Your task to perform on an android device: open sync settings in chrome Image 0: 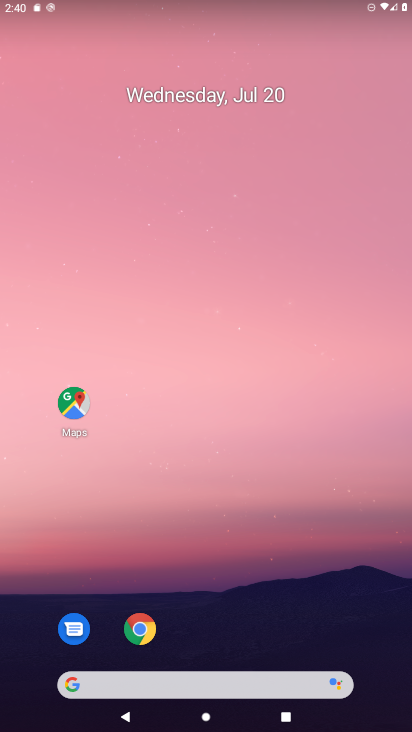
Step 0: press home button
Your task to perform on an android device: open sync settings in chrome Image 1: 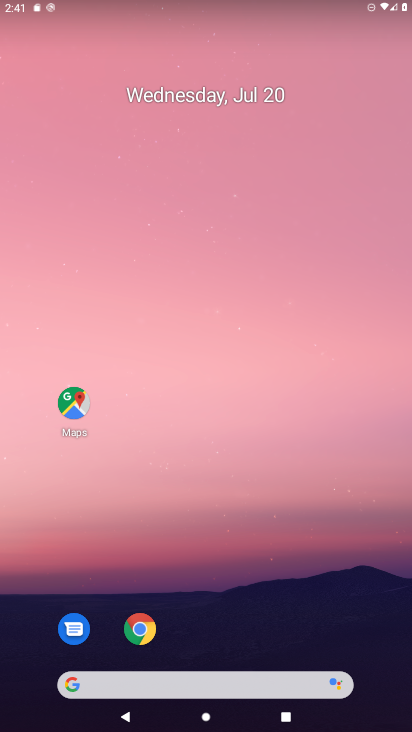
Step 1: drag from (272, 634) to (317, 50)
Your task to perform on an android device: open sync settings in chrome Image 2: 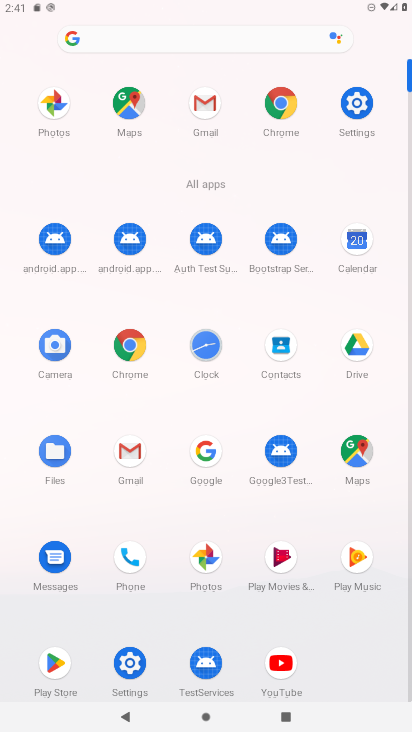
Step 2: click (283, 102)
Your task to perform on an android device: open sync settings in chrome Image 3: 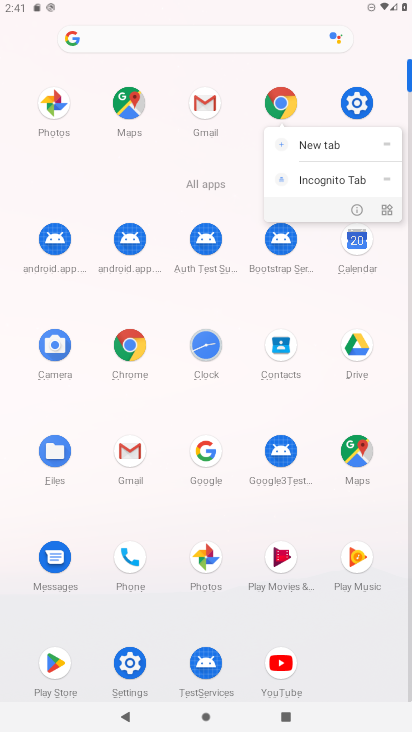
Step 3: click (283, 97)
Your task to perform on an android device: open sync settings in chrome Image 4: 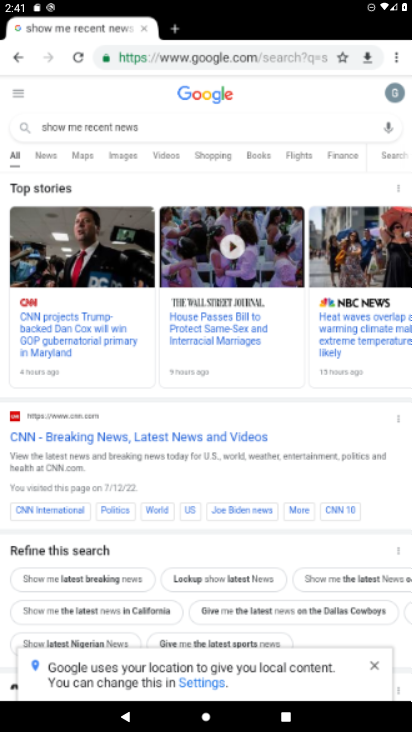
Step 4: drag from (402, 53) to (298, 346)
Your task to perform on an android device: open sync settings in chrome Image 5: 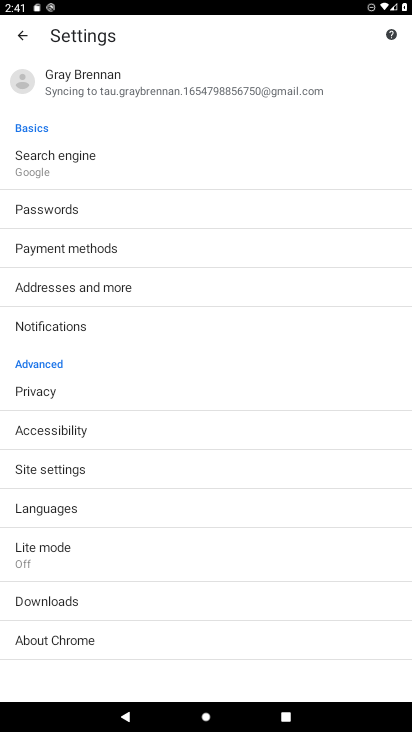
Step 5: click (65, 90)
Your task to perform on an android device: open sync settings in chrome Image 6: 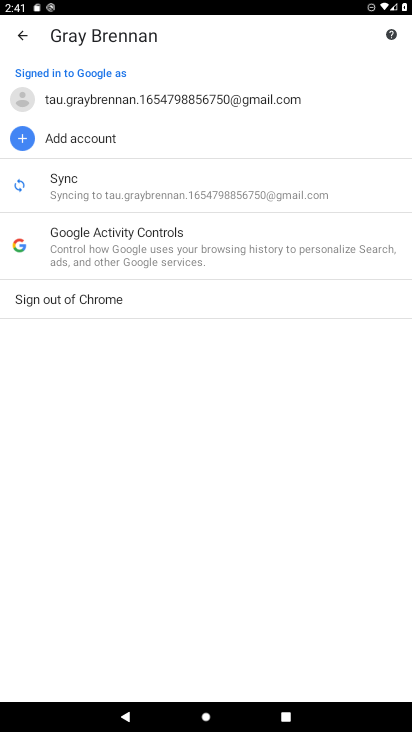
Step 6: click (131, 181)
Your task to perform on an android device: open sync settings in chrome Image 7: 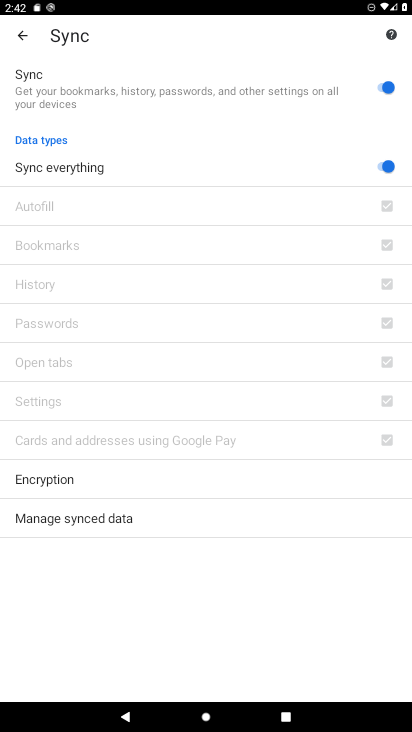
Step 7: task complete